Your task to perform on an android device: Go to sound settings Image 0: 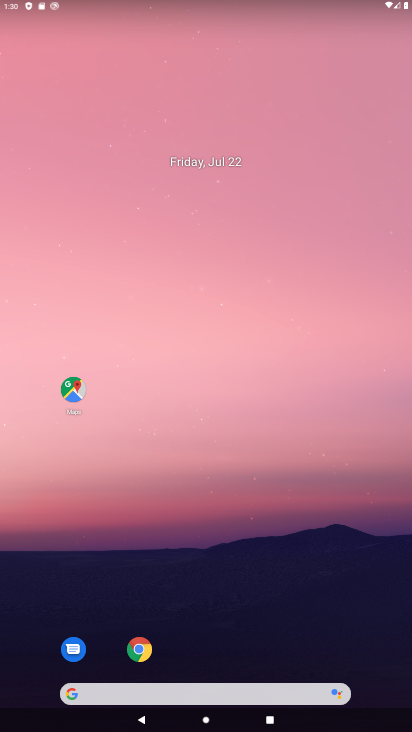
Step 0: drag from (298, 624) to (260, 127)
Your task to perform on an android device: Go to sound settings Image 1: 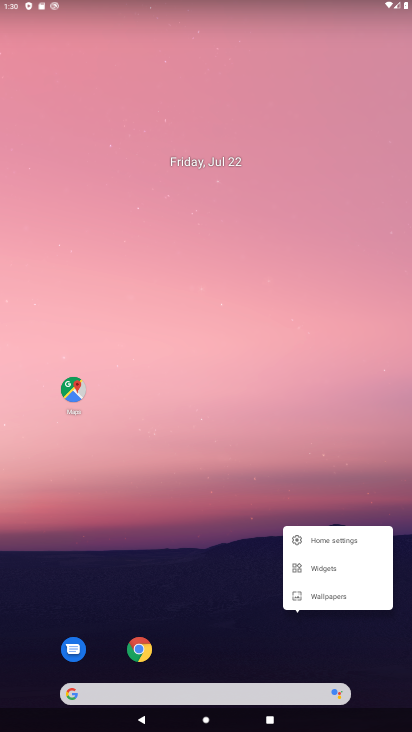
Step 1: click (274, 488)
Your task to perform on an android device: Go to sound settings Image 2: 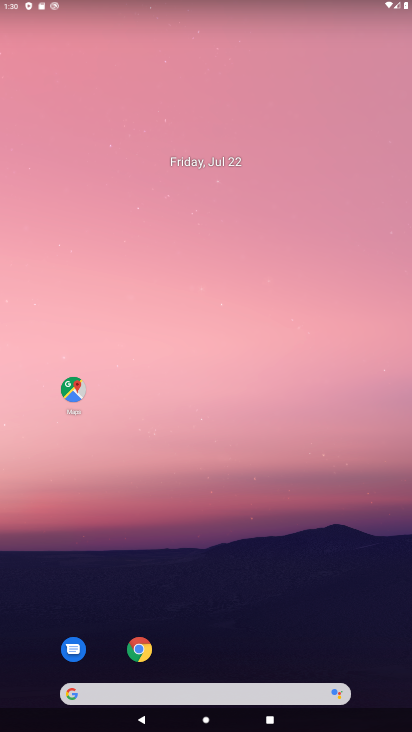
Step 2: drag from (235, 498) to (226, 68)
Your task to perform on an android device: Go to sound settings Image 3: 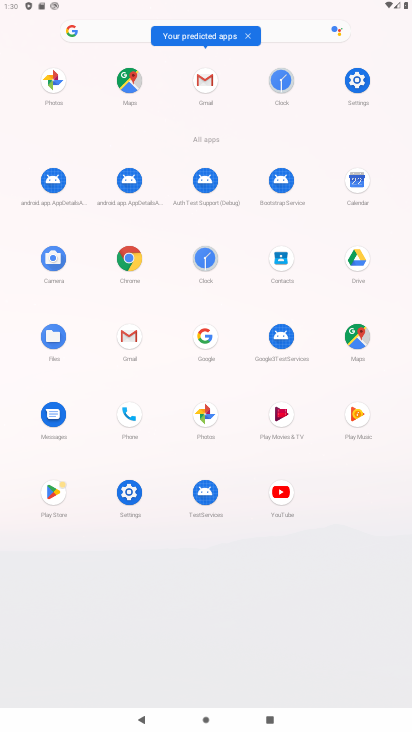
Step 3: click (363, 89)
Your task to perform on an android device: Go to sound settings Image 4: 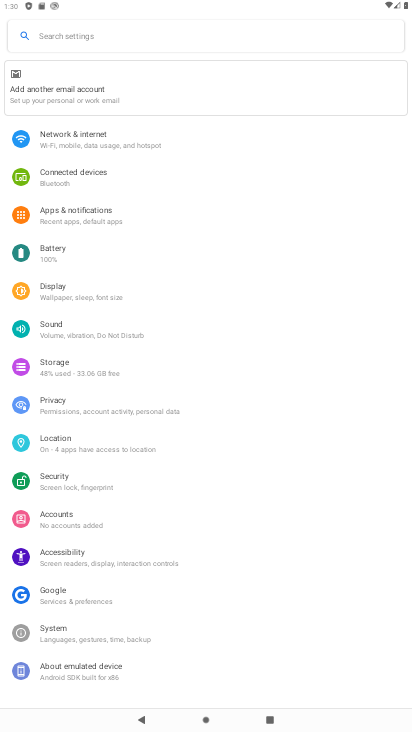
Step 4: click (77, 322)
Your task to perform on an android device: Go to sound settings Image 5: 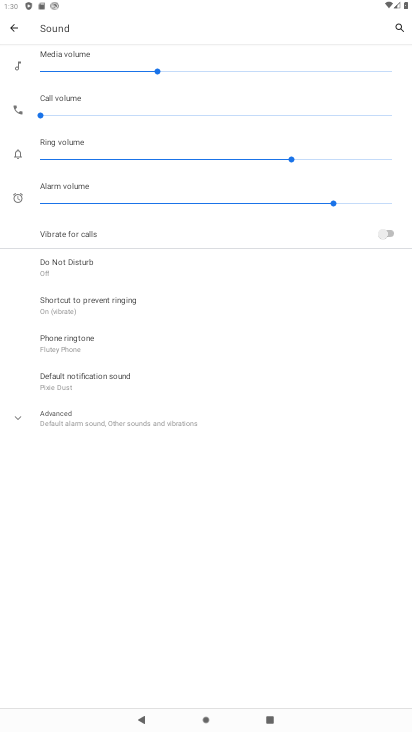
Step 5: task complete